Your task to perform on an android device: Clear all items from cart on bestbuy. Add "alienware aurora" to the cart on bestbuy Image 0: 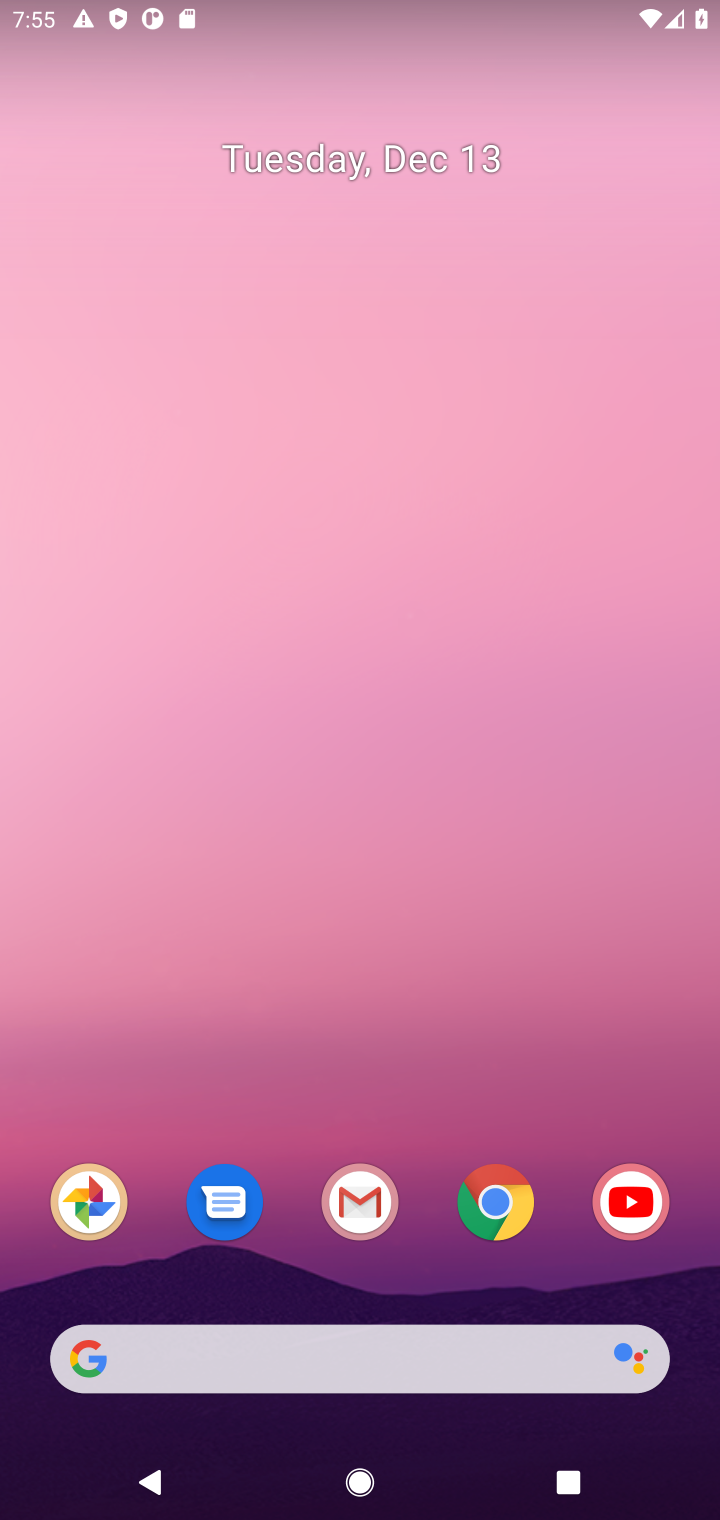
Step 0: click (502, 1212)
Your task to perform on an android device: Clear all items from cart on bestbuy. Add "alienware aurora" to the cart on bestbuy Image 1: 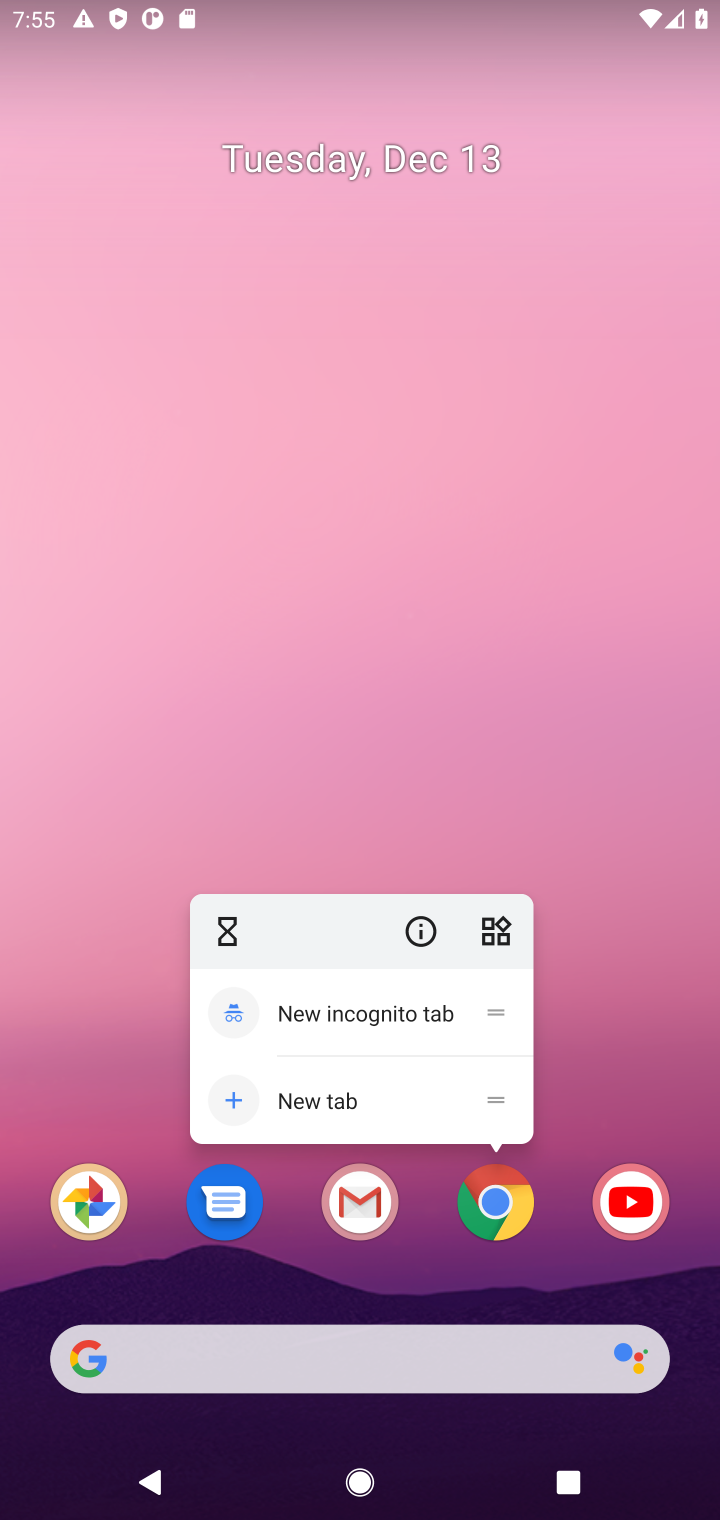
Step 1: click (504, 1208)
Your task to perform on an android device: Clear all items from cart on bestbuy. Add "alienware aurora" to the cart on bestbuy Image 2: 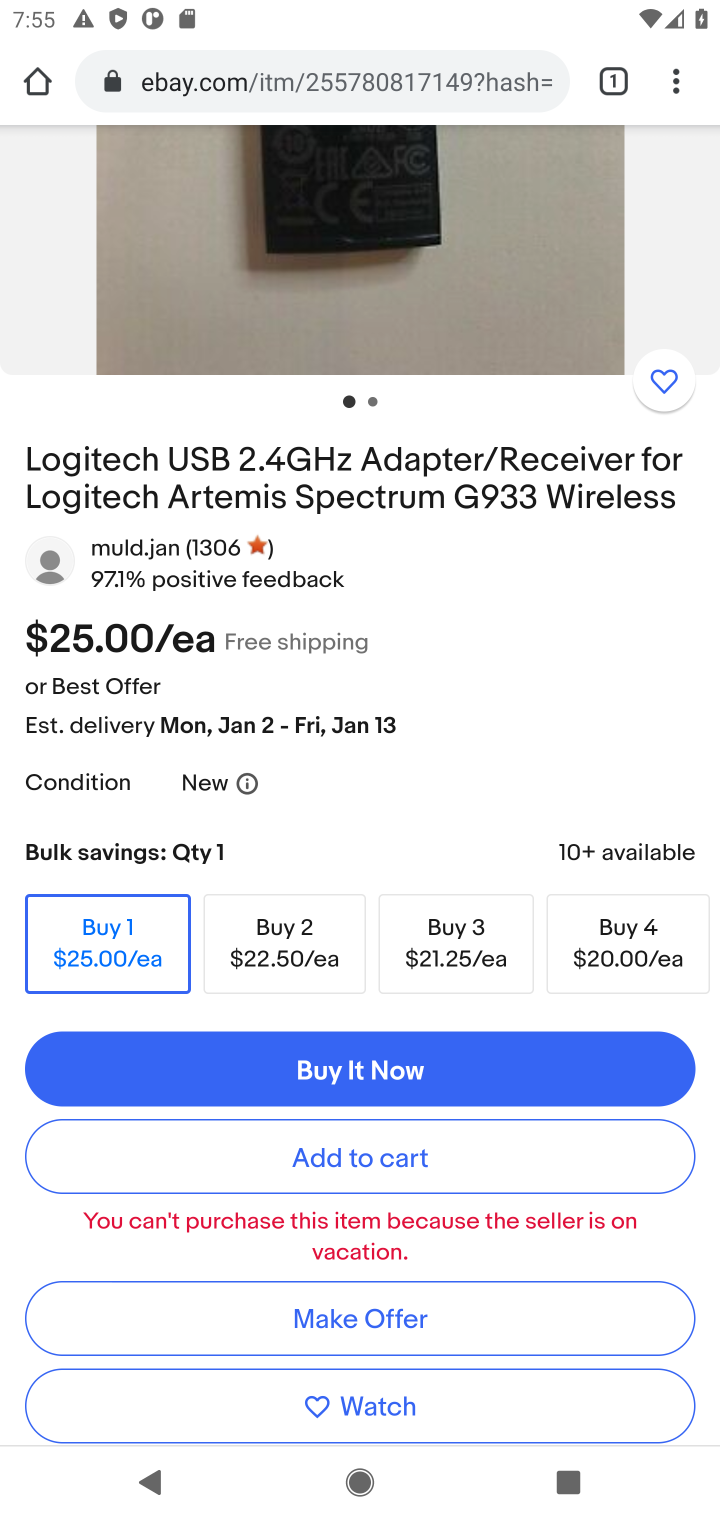
Step 2: click (264, 95)
Your task to perform on an android device: Clear all items from cart on bestbuy. Add "alienware aurora" to the cart on bestbuy Image 3: 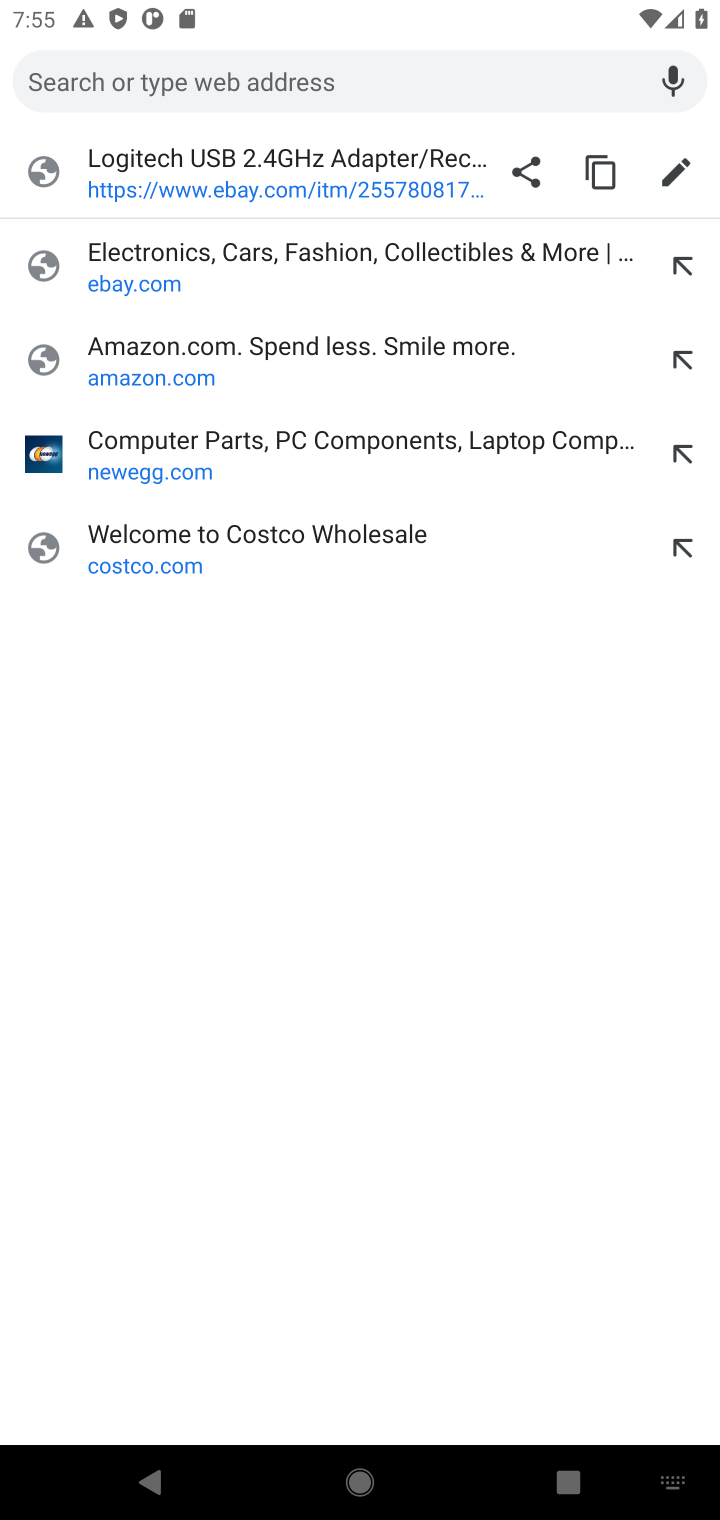
Step 3: type "bestbuy.com"
Your task to perform on an android device: Clear all items from cart on bestbuy. Add "alienware aurora" to the cart on bestbuy Image 4: 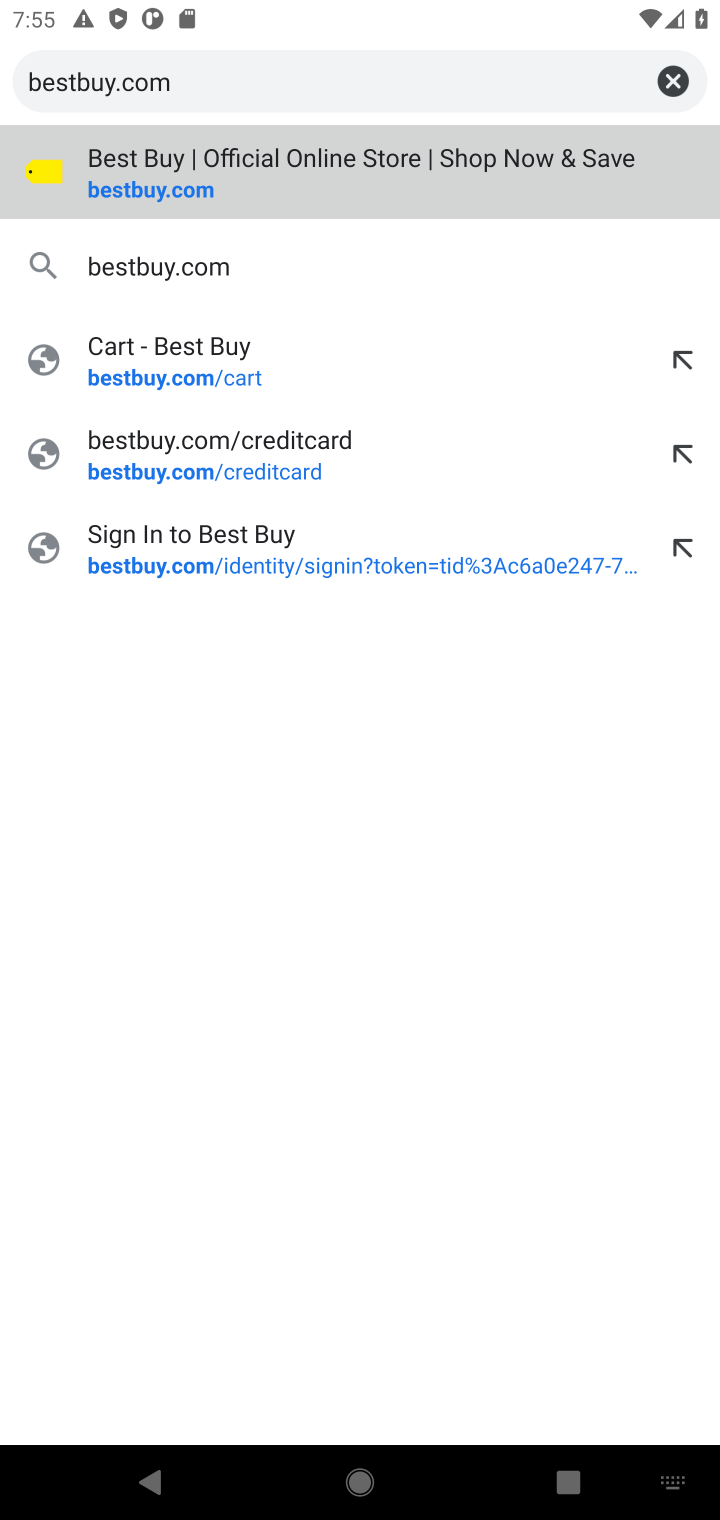
Step 4: click (153, 202)
Your task to perform on an android device: Clear all items from cart on bestbuy. Add "alienware aurora" to the cart on bestbuy Image 5: 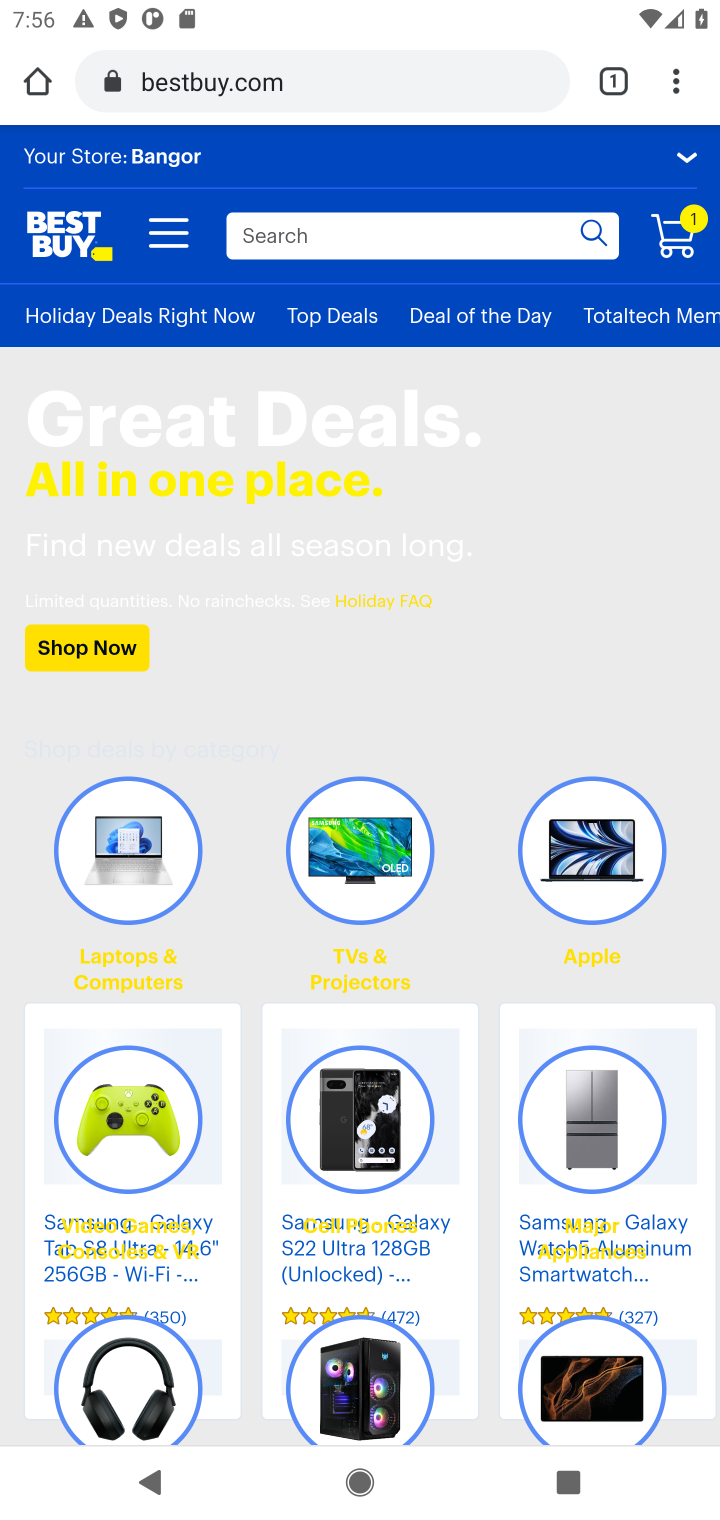
Step 5: drag from (262, 723) to (250, 832)
Your task to perform on an android device: Clear all items from cart on bestbuy. Add "alienware aurora" to the cart on bestbuy Image 6: 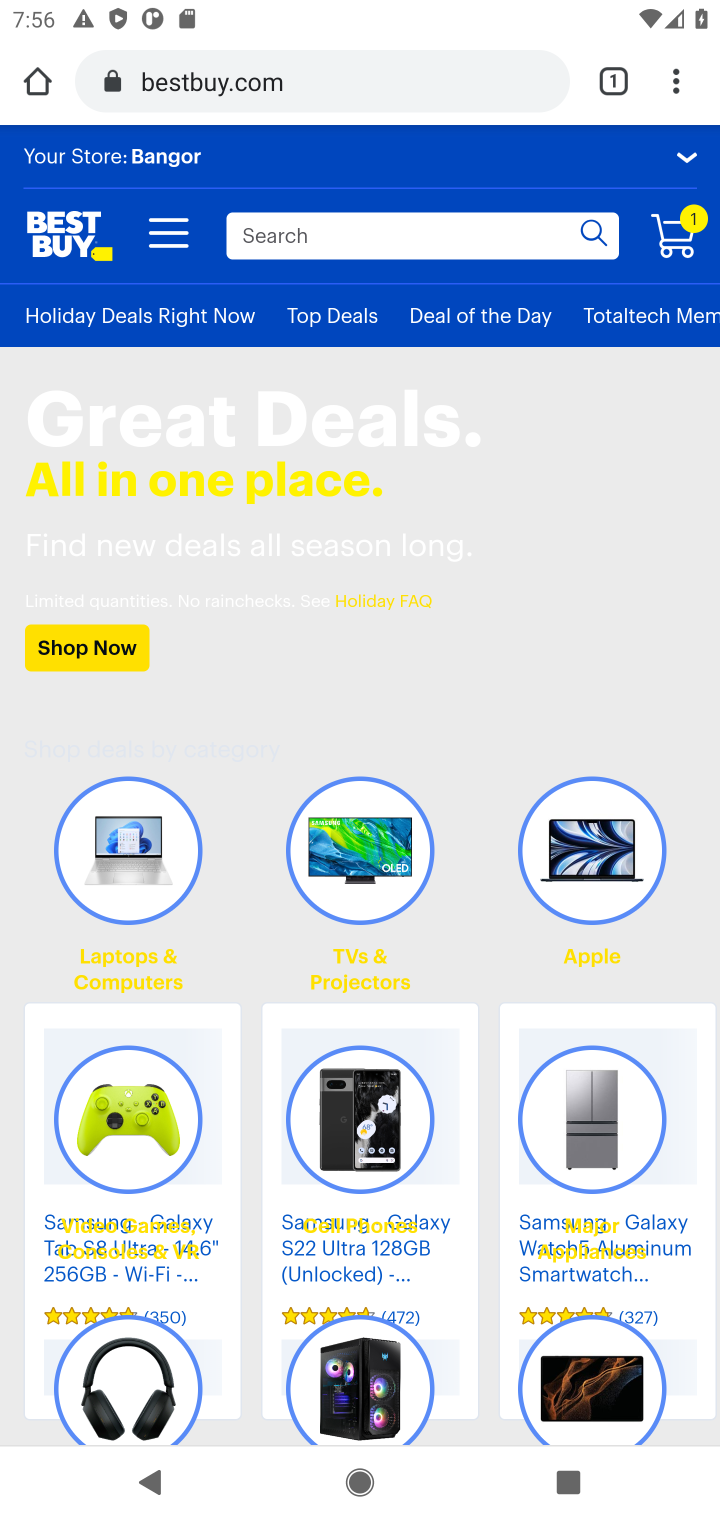
Step 6: click (688, 234)
Your task to perform on an android device: Clear all items from cart on bestbuy. Add "alienware aurora" to the cart on bestbuy Image 7: 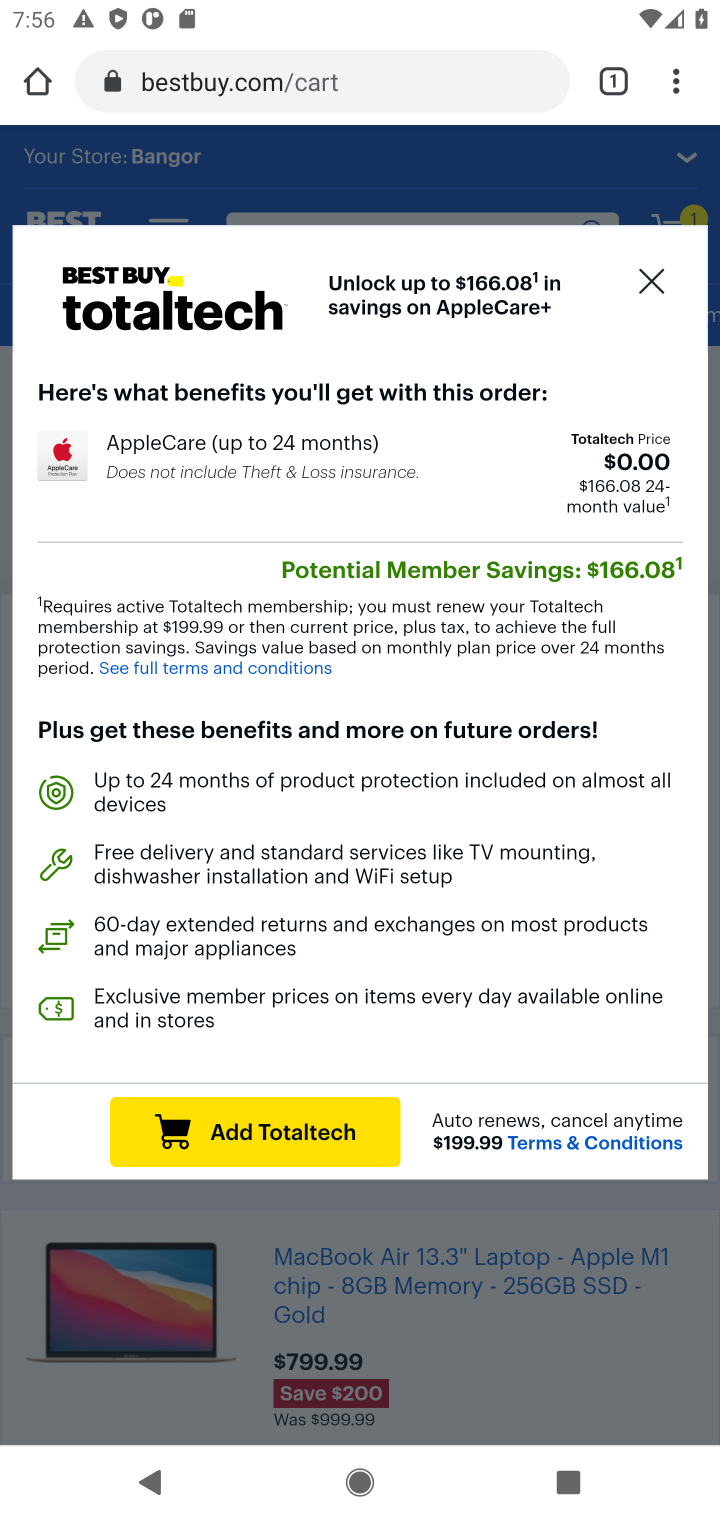
Step 7: click (649, 290)
Your task to perform on an android device: Clear all items from cart on bestbuy. Add "alienware aurora" to the cart on bestbuy Image 8: 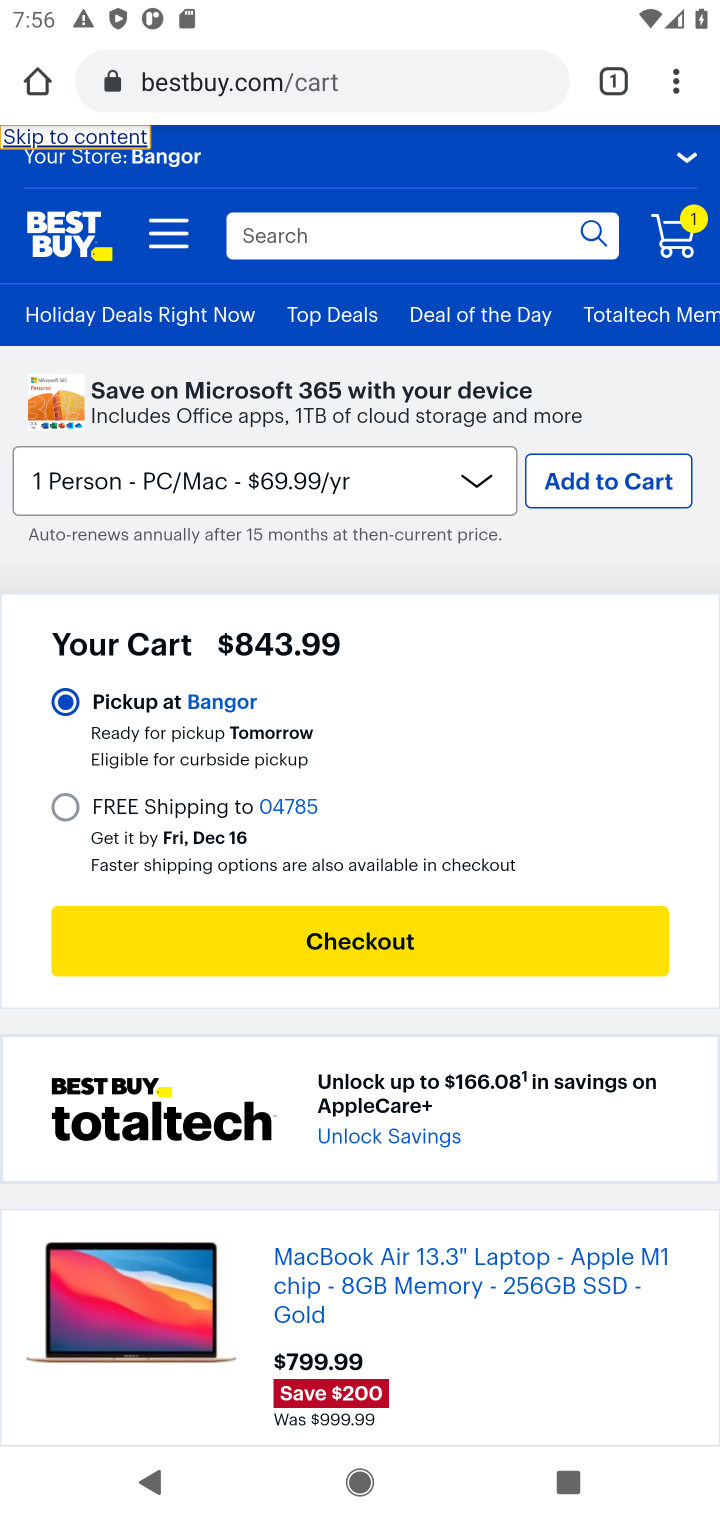
Step 8: drag from (235, 1035) to (240, 500)
Your task to perform on an android device: Clear all items from cart on bestbuy. Add "alienware aurora" to the cart on bestbuy Image 9: 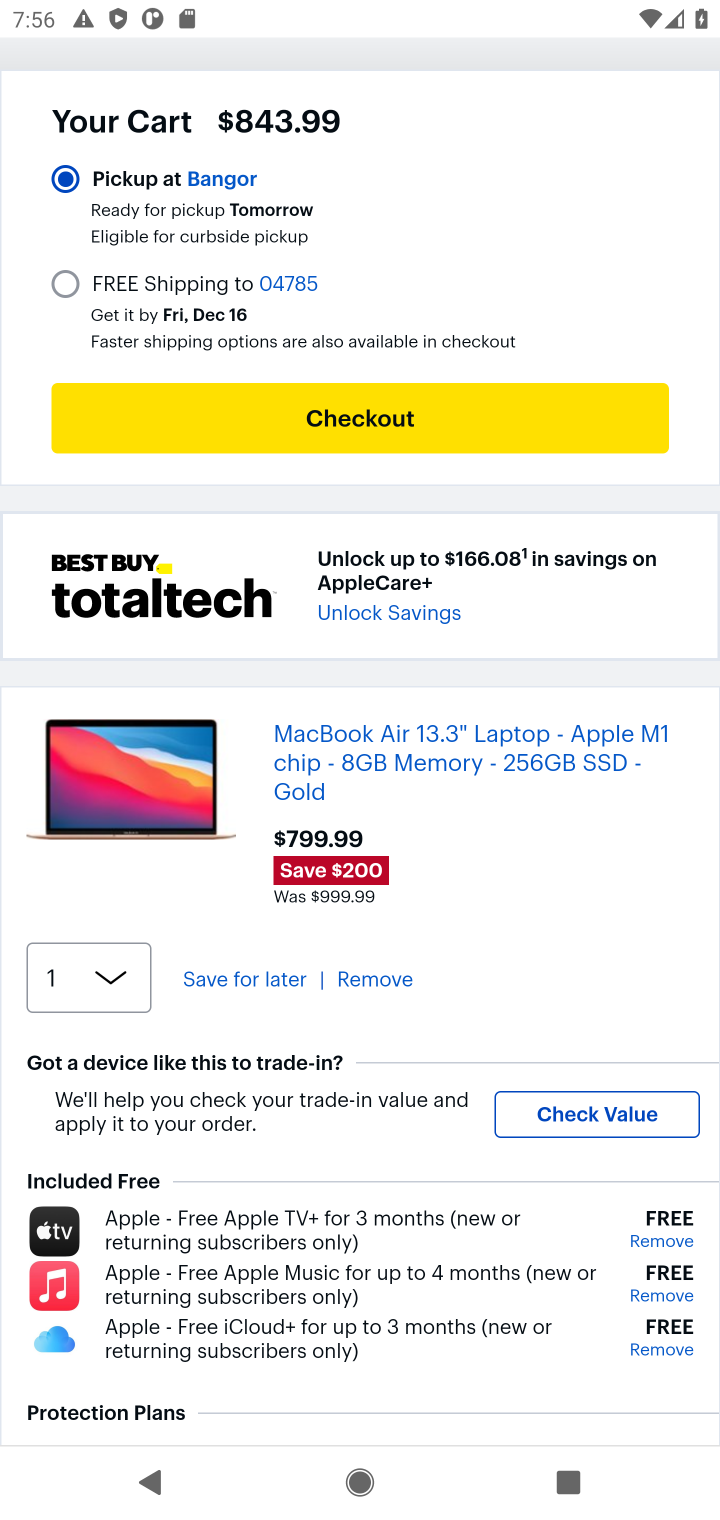
Step 9: click (361, 978)
Your task to perform on an android device: Clear all items from cart on bestbuy. Add "alienware aurora" to the cart on bestbuy Image 10: 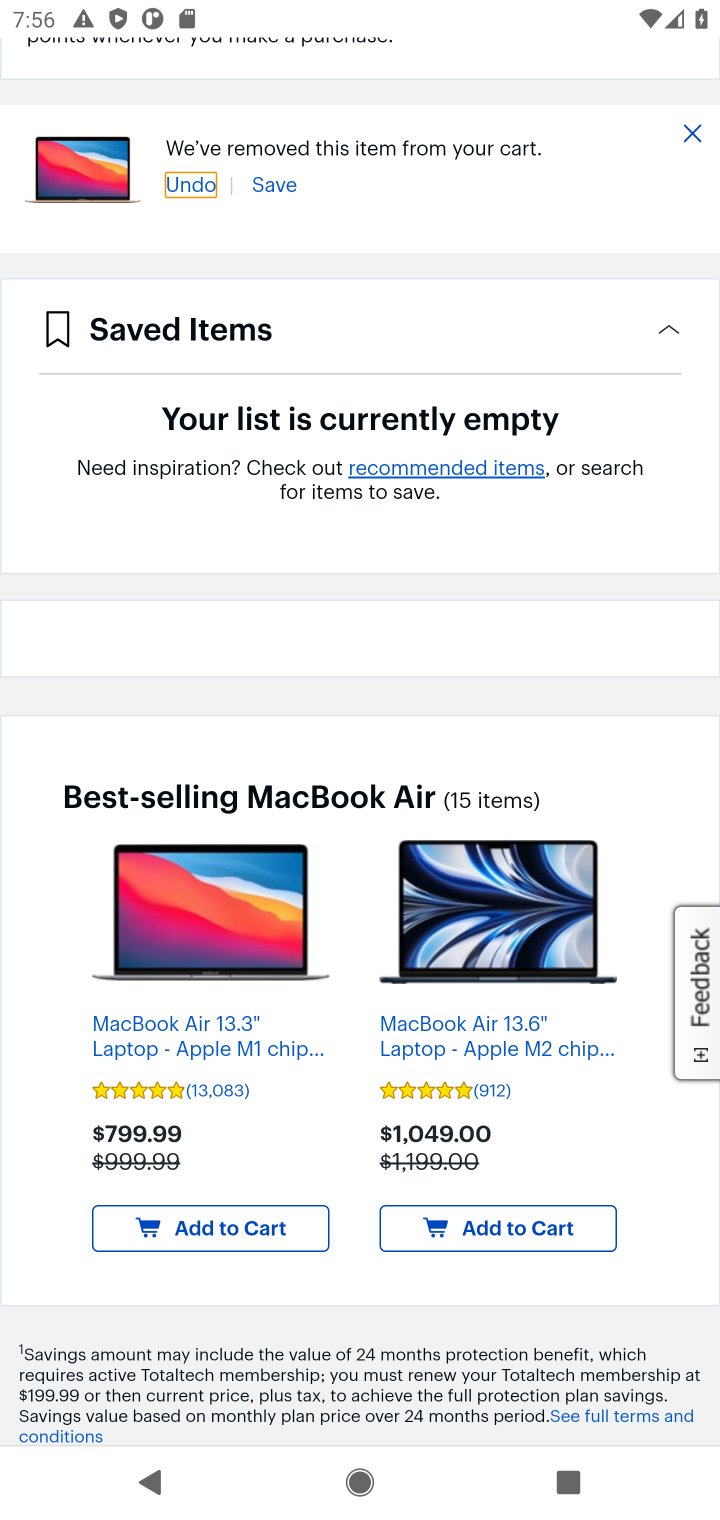
Step 10: drag from (451, 205) to (376, 922)
Your task to perform on an android device: Clear all items from cart on bestbuy. Add "alienware aurora" to the cart on bestbuy Image 11: 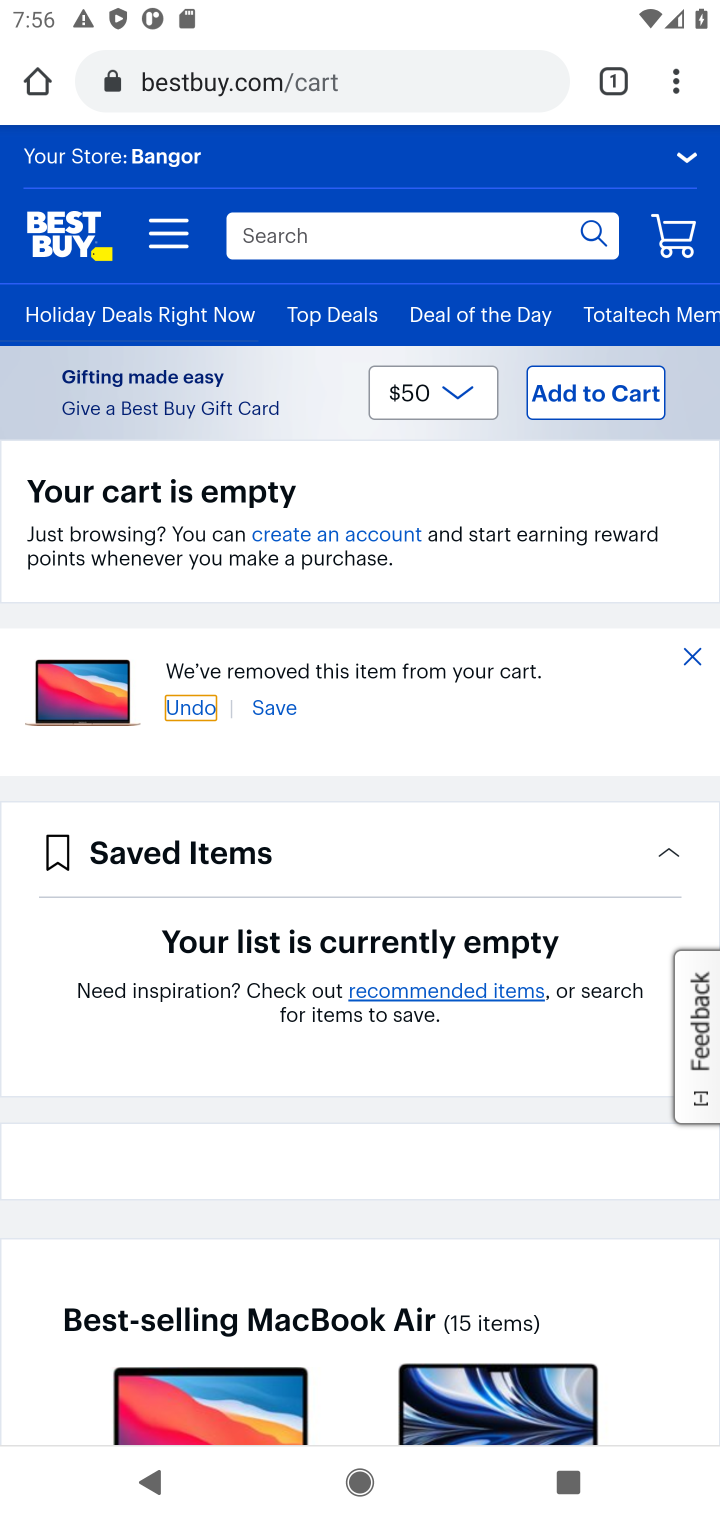
Step 11: drag from (266, 307) to (242, 758)
Your task to perform on an android device: Clear all items from cart on bestbuy. Add "alienware aurora" to the cart on bestbuy Image 12: 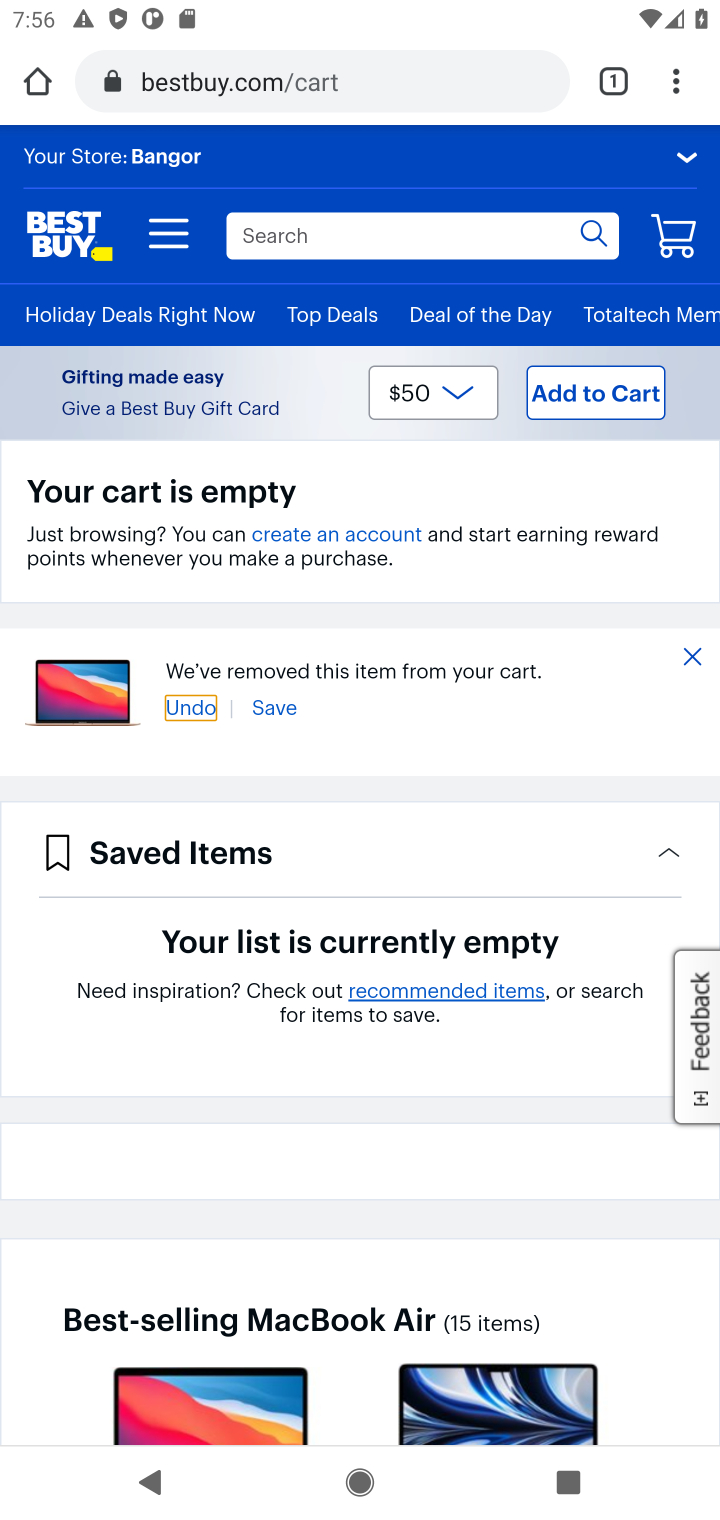
Step 12: click (344, 244)
Your task to perform on an android device: Clear all items from cart on bestbuy. Add "alienware aurora" to the cart on bestbuy Image 13: 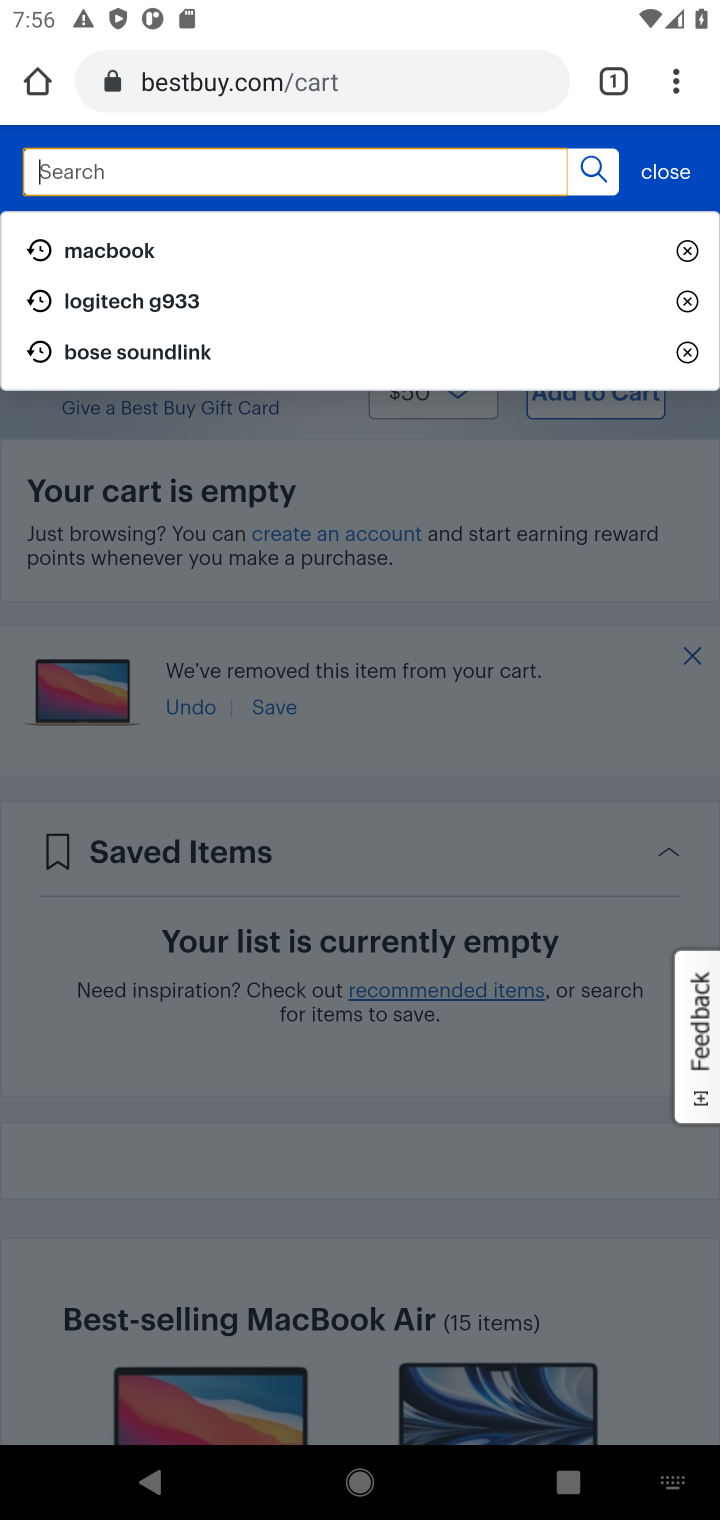
Step 13: type "alienware aurora"
Your task to perform on an android device: Clear all items from cart on bestbuy. Add "alienware aurora" to the cart on bestbuy Image 14: 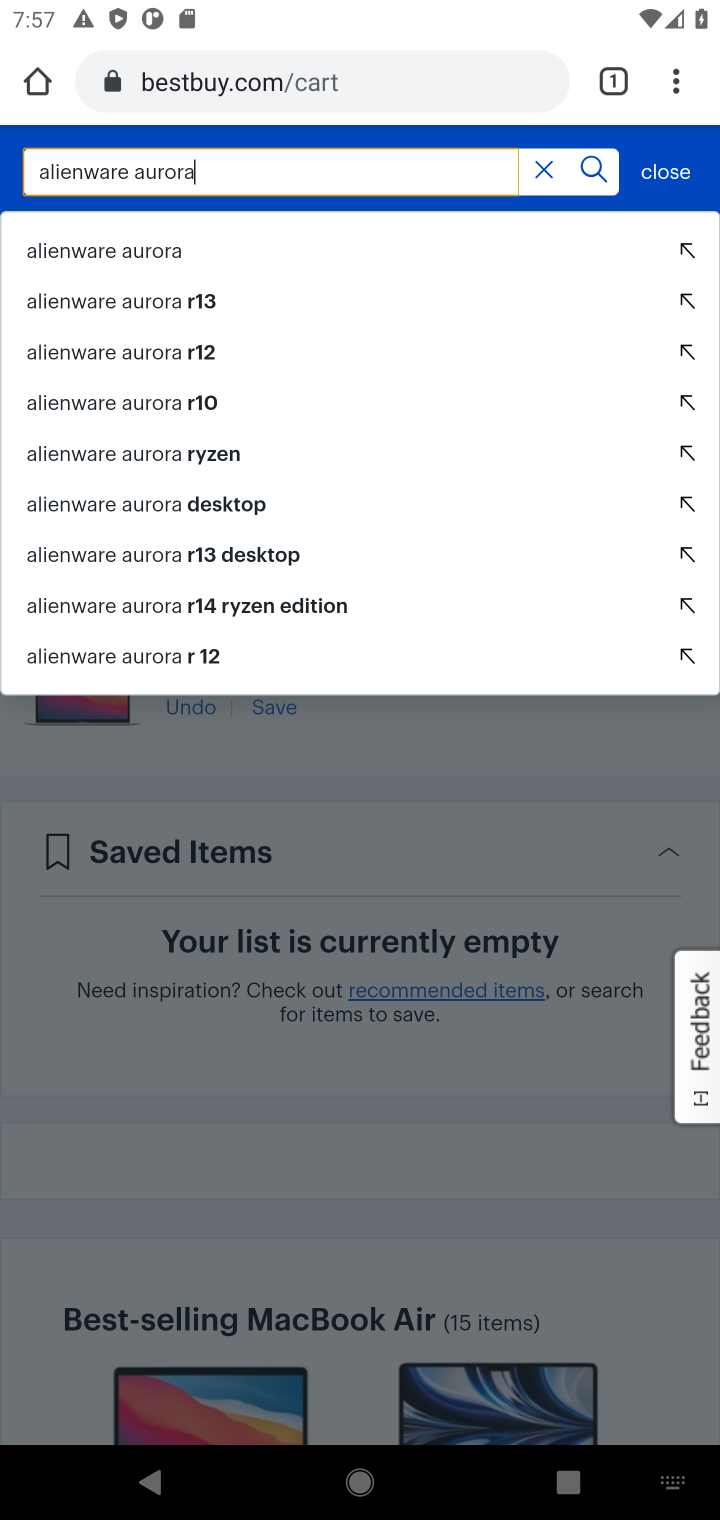
Step 14: click (142, 258)
Your task to perform on an android device: Clear all items from cart on bestbuy. Add "alienware aurora" to the cart on bestbuy Image 15: 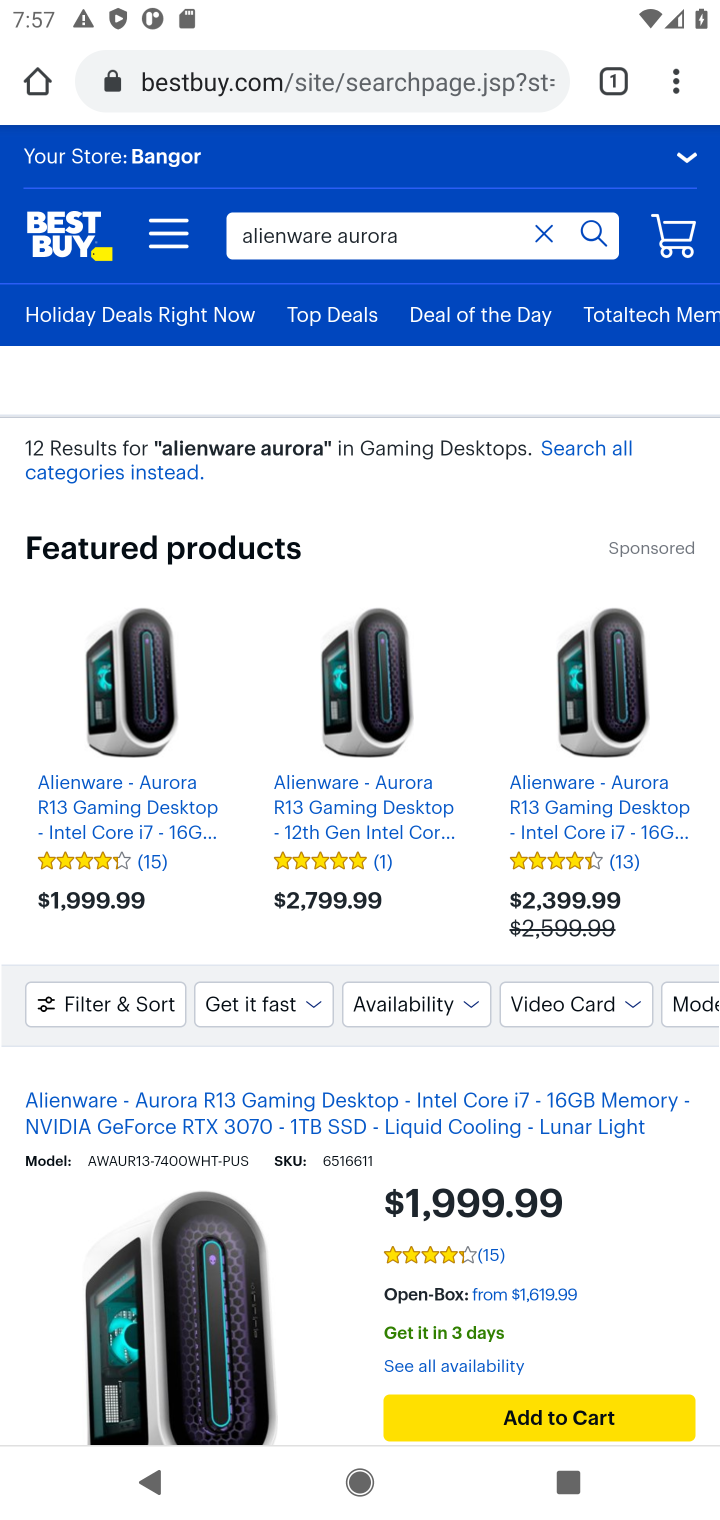
Step 15: drag from (245, 937) to (237, 559)
Your task to perform on an android device: Clear all items from cart on bestbuy. Add "alienware aurora" to the cart on bestbuy Image 16: 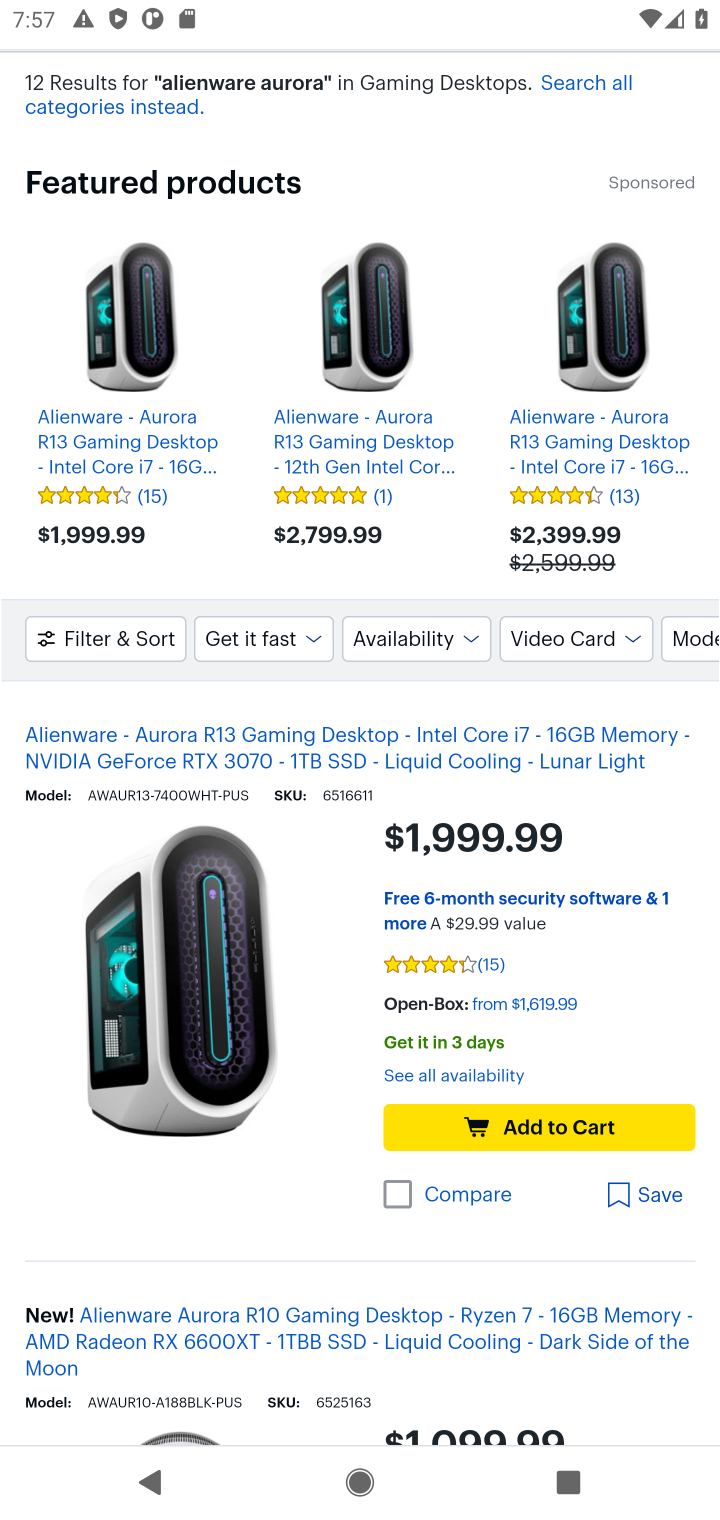
Step 16: click (507, 1126)
Your task to perform on an android device: Clear all items from cart on bestbuy. Add "alienware aurora" to the cart on bestbuy Image 17: 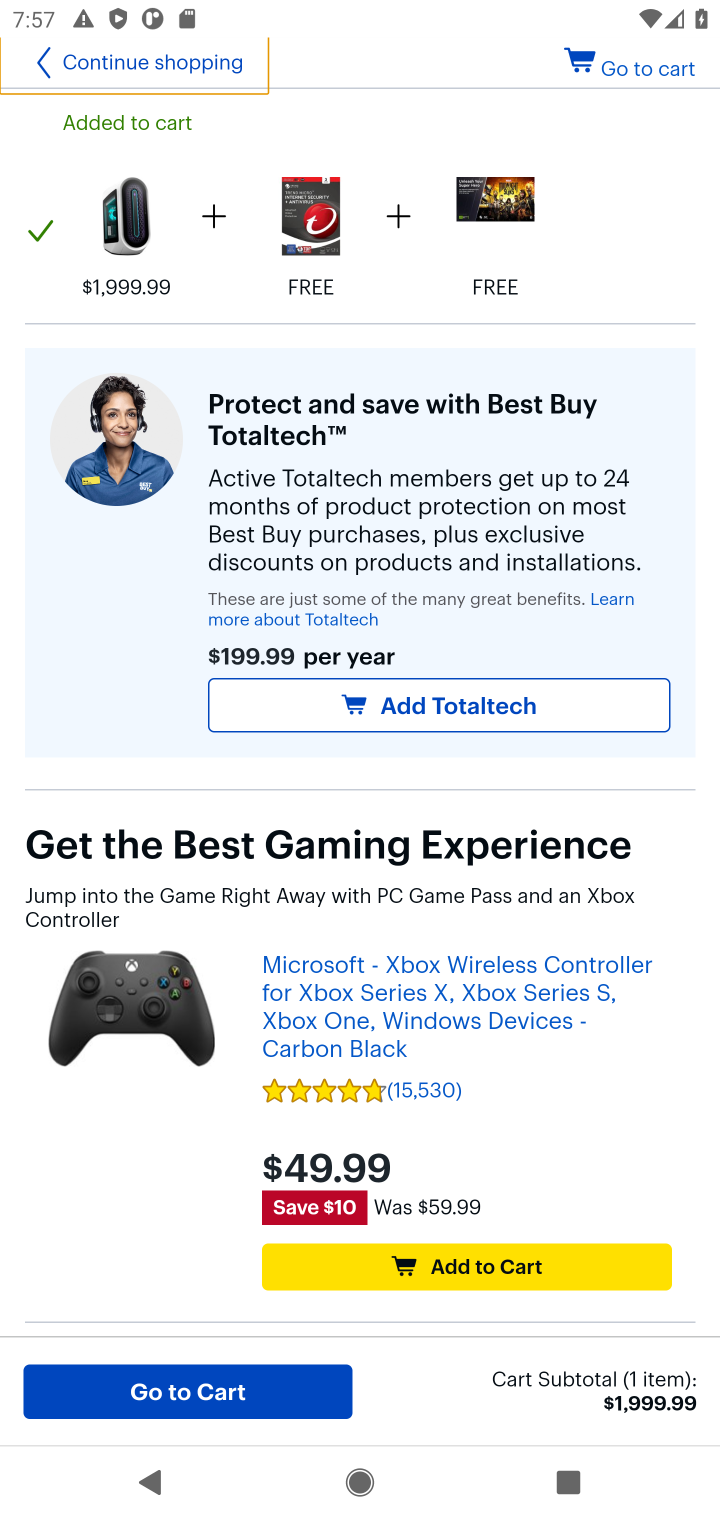
Step 17: task complete